Your task to perform on an android device: Open the calendar app, open the side menu, and click the "Day" option Image 0: 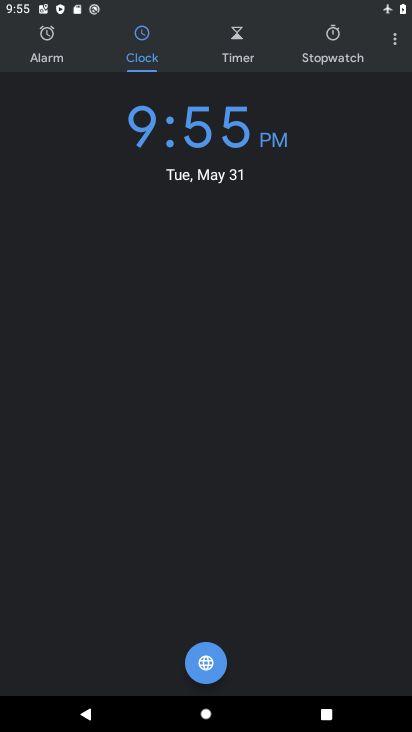
Step 0: press home button
Your task to perform on an android device: Open the calendar app, open the side menu, and click the "Day" option Image 1: 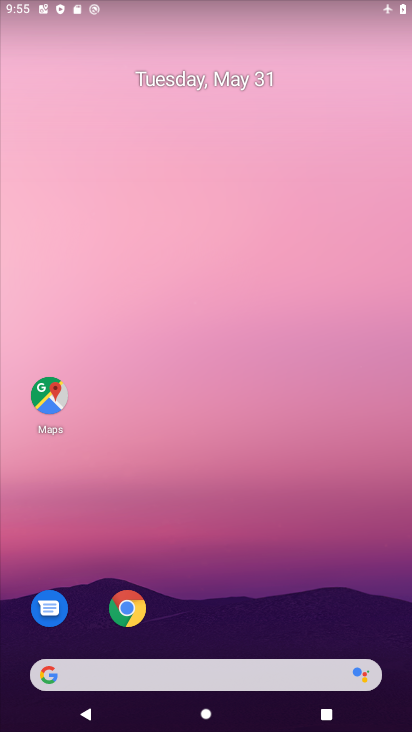
Step 1: drag from (194, 657) to (264, 41)
Your task to perform on an android device: Open the calendar app, open the side menu, and click the "Day" option Image 2: 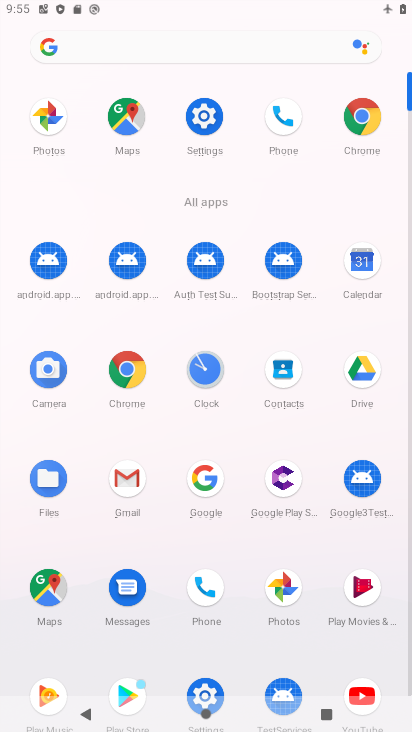
Step 2: click (375, 261)
Your task to perform on an android device: Open the calendar app, open the side menu, and click the "Day" option Image 3: 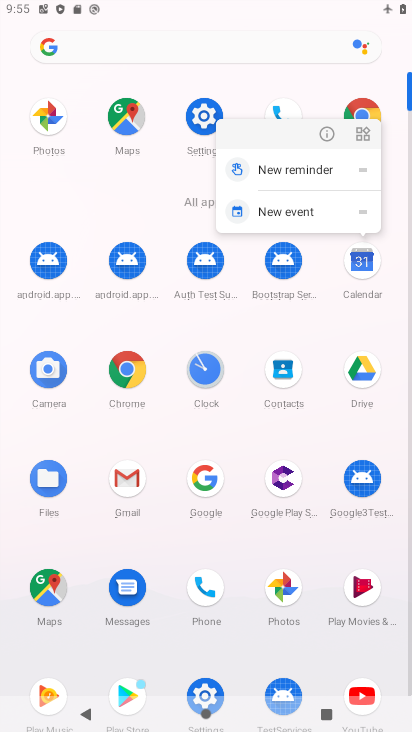
Step 3: click (357, 273)
Your task to perform on an android device: Open the calendar app, open the side menu, and click the "Day" option Image 4: 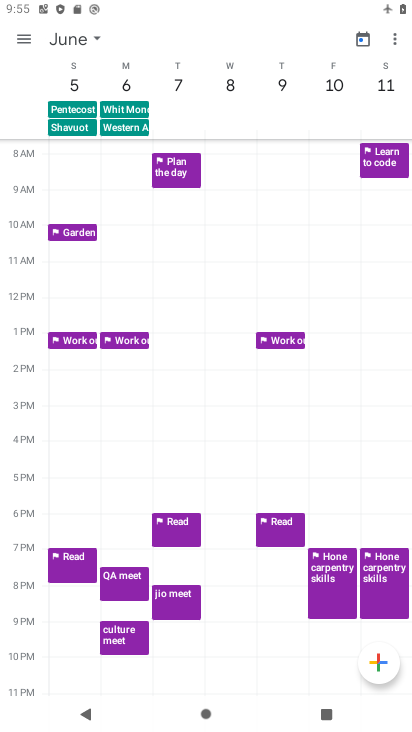
Step 4: click (22, 43)
Your task to perform on an android device: Open the calendar app, open the side menu, and click the "Day" option Image 5: 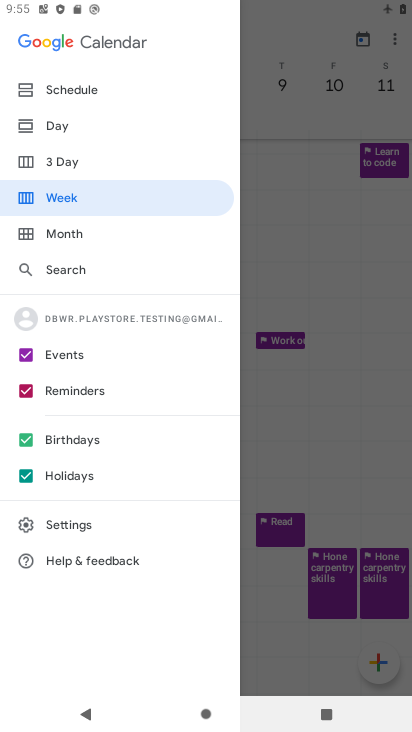
Step 5: click (56, 130)
Your task to perform on an android device: Open the calendar app, open the side menu, and click the "Day" option Image 6: 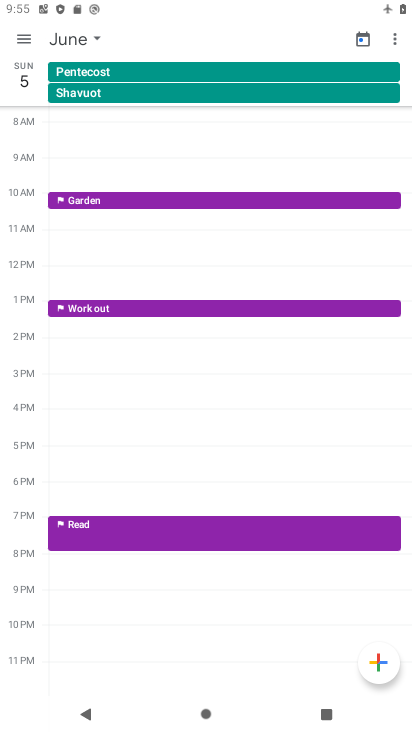
Step 6: task complete